Your task to perform on an android device: Open Android settings Image 0: 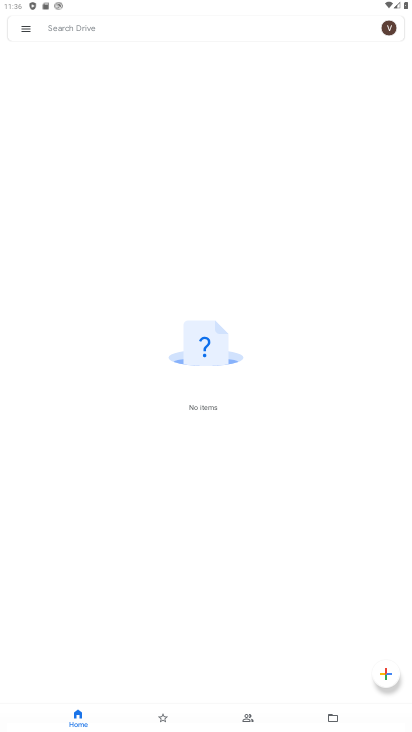
Step 0: press home button
Your task to perform on an android device: Open Android settings Image 1: 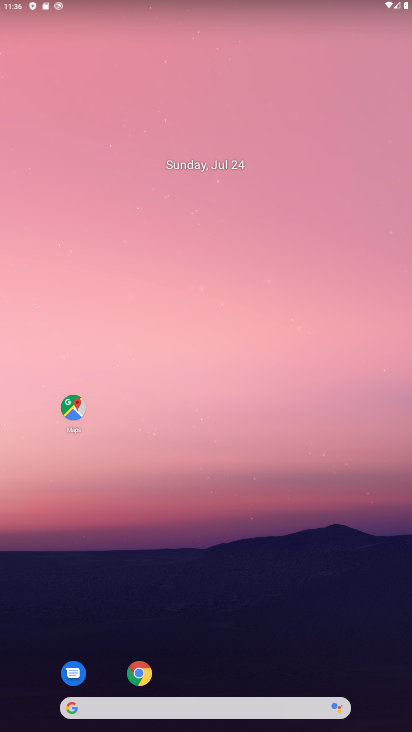
Step 1: drag from (207, 701) to (402, 267)
Your task to perform on an android device: Open Android settings Image 2: 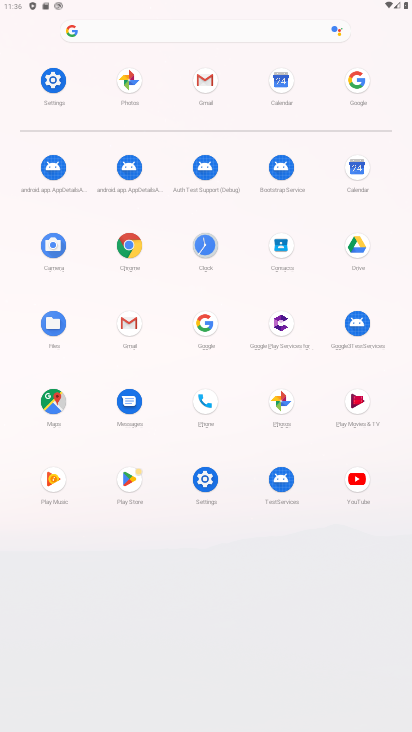
Step 2: click (207, 478)
Your task to perform on an android device: Open Android settings Image 3: 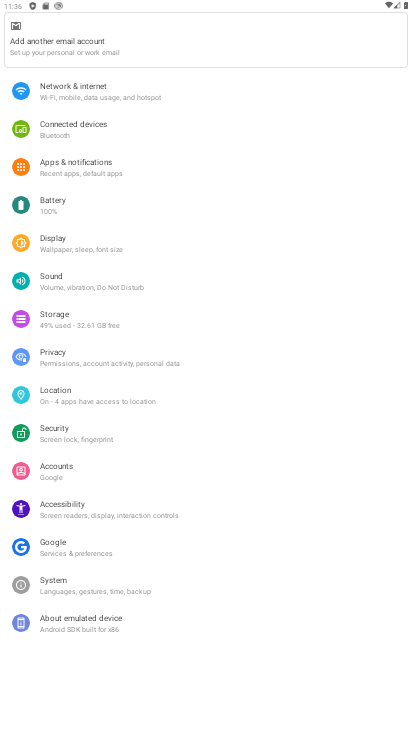
Step 3: task complete